Your task to perform on an android device: What's the weather going to be this weekend? Image 0: 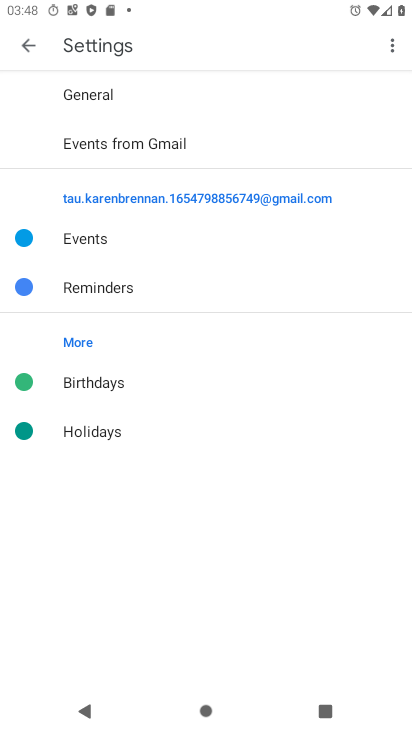
Step 0: press home button
Your task to perform on an android device: What's the weather going to be this weekend? Image 1: 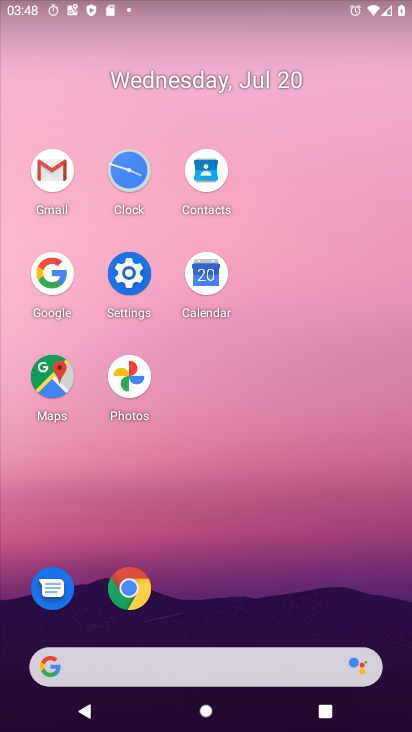
Step 1: drag from (265, 555) to (291, 118)
Your task to perform on an android device: What's the weather going to be this weekend? Image 2: 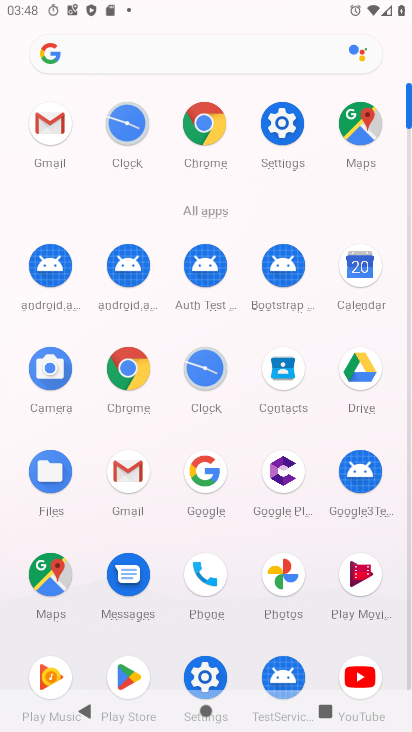
Step 2: drag from (196, 473) to (196, 352)
Your task to perform on an android device: What's the weather going to be this weekend? Image 3: 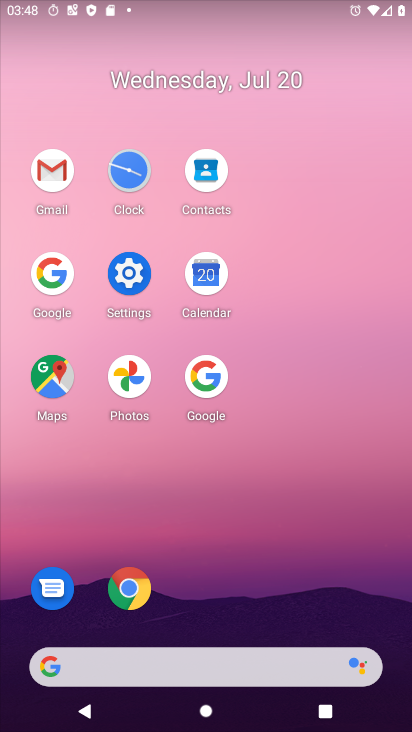
Step 3: click (214, 372)
Your task to perform on an android device: What's the weather going to be this weekend? Image 4: 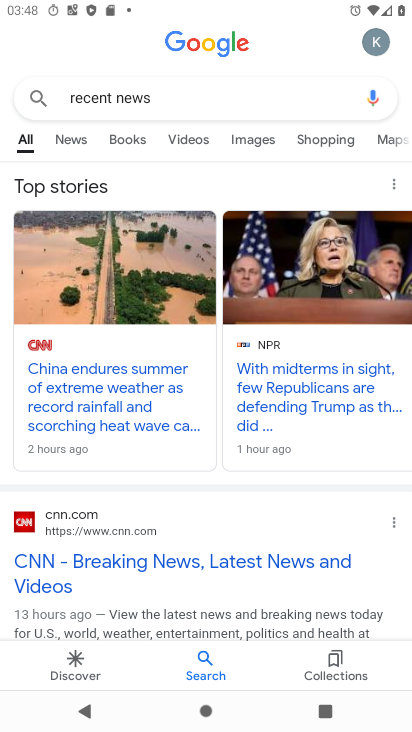
Step 4: click (254, 92)
Your task to perform on an android device: What's the weather going to be this weekend? Image 5: 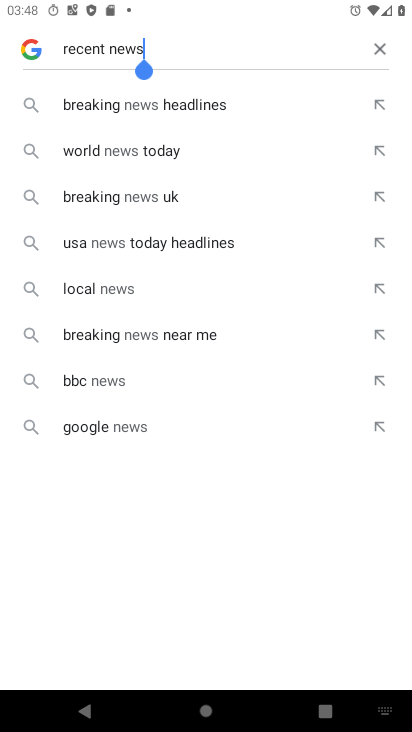
Step 5: click (370, 49)
Your task to perform on an android device: What's the weather going to be this weekend? Image 6: 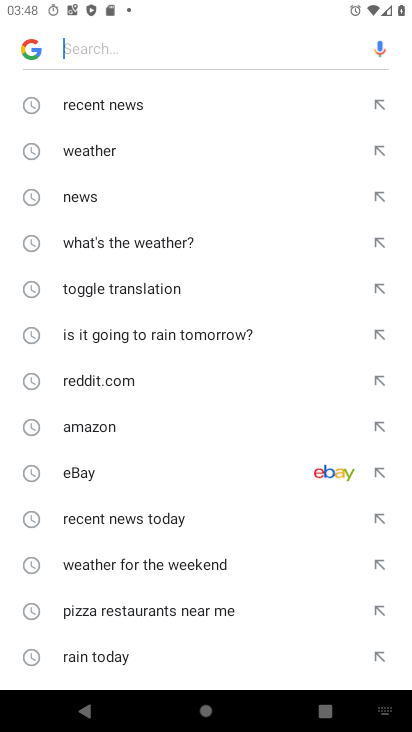
Step 6: click (115, 147)
Your task to perform on an android device: What's the weather going to be this weekend? Image 7: 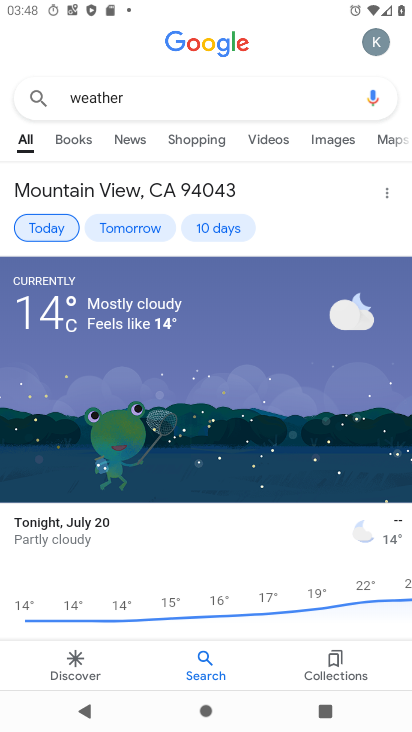
Step 7: click (236, 221)
Your task to perform on an android device: What's the weather going to be this weekend? Image 8: 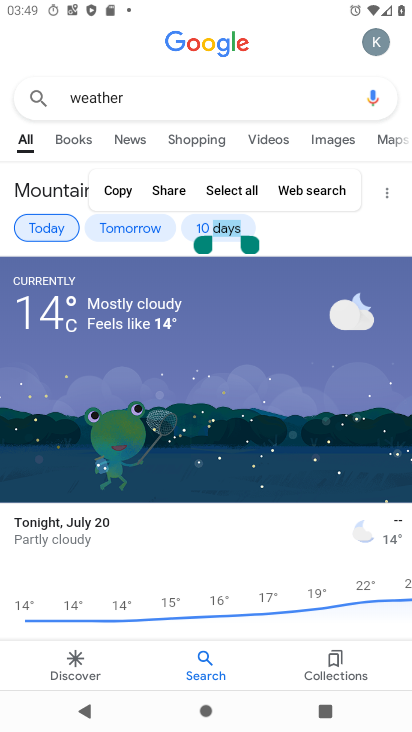
Step 8: click (242, 230)
Your task to perform on an android device: What's the weather going to be this weekend? Image 9: 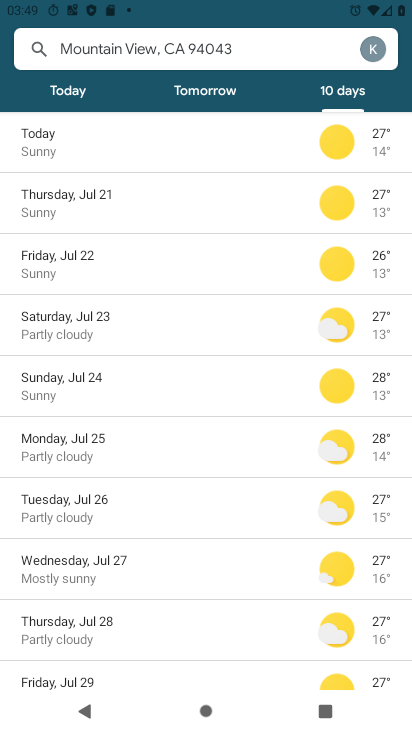
Step 9: click (157, 314)
Your task to perform on an android device: What's the weather going to be this weekend? Image 10: 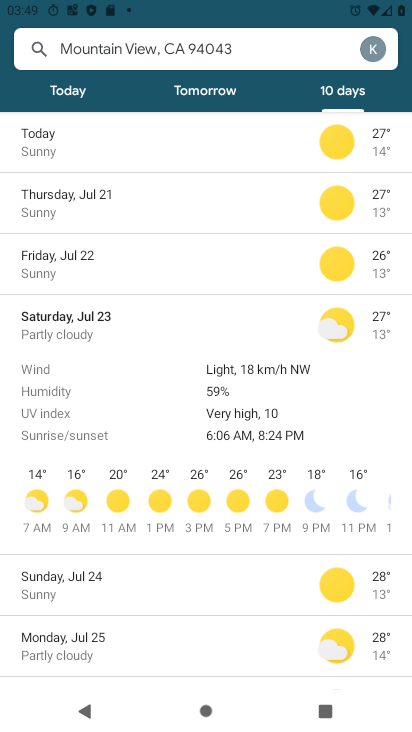
Step 10: task complete